Your task to perform on an android device: Go to ESPN.com Image 0: 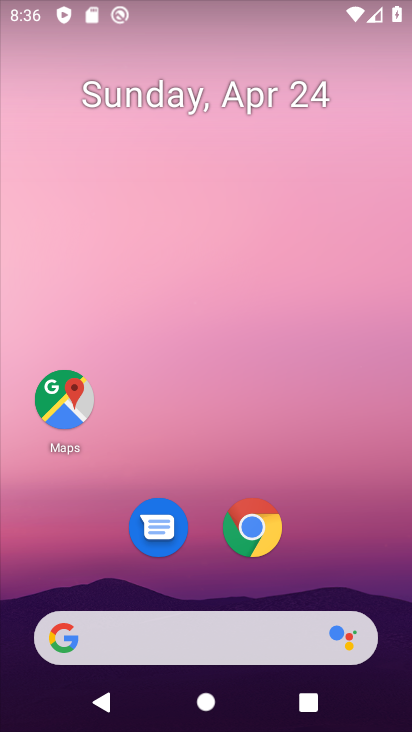
Step 0: click (249, 531)
Your task to perform on an android device: Go to ESPN.com Image 1: 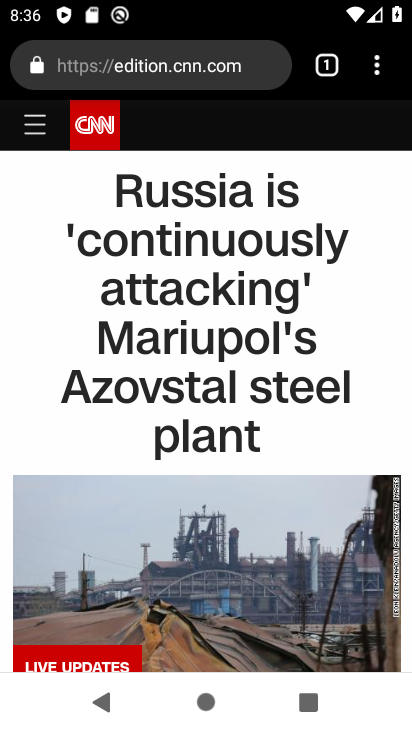
Step 1: click (147, 69)
Your task to perform on an android device: Go to ESPN.com Image 2: 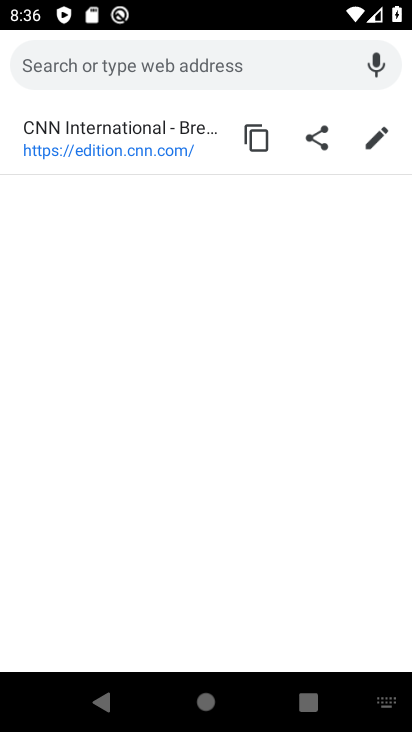
Step 2: type "espn.com"
Your task to perform on an android device: Go to ESPN.com Image 3: 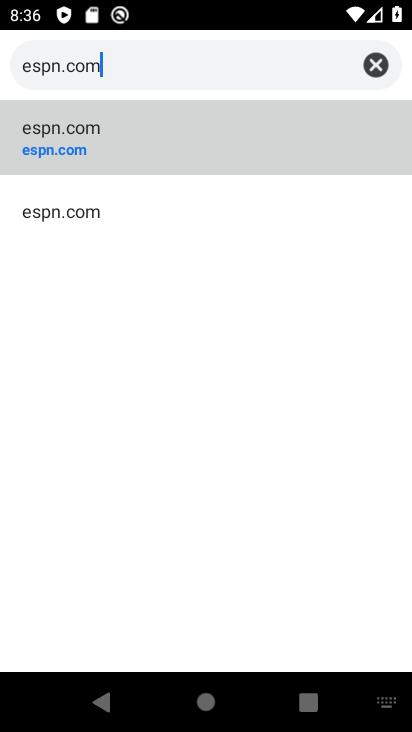
Step 3: click (28, 141)
Your task to perform on an android device: Go to ESPN.com Image 4: 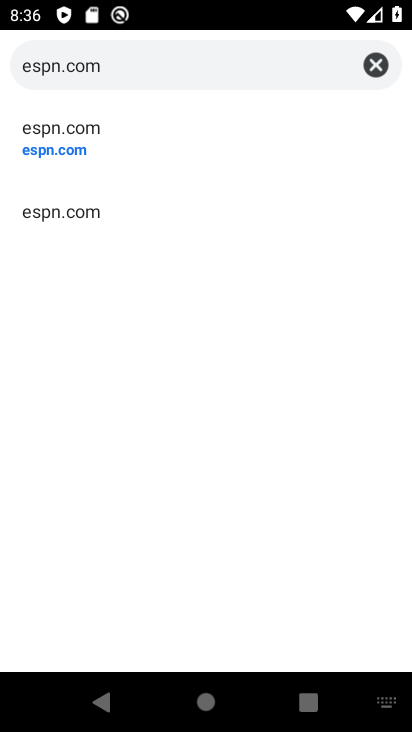
Step 4: click (44, 159)
Your task to perform on an android device: Go to ESPN.com Image 5: 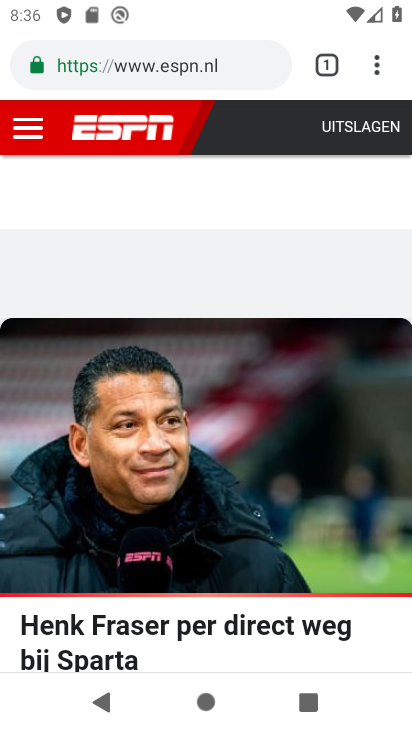
Step 5: task complete